Your task to perform on an android device: delete browsing data in the chrome app Image 0: 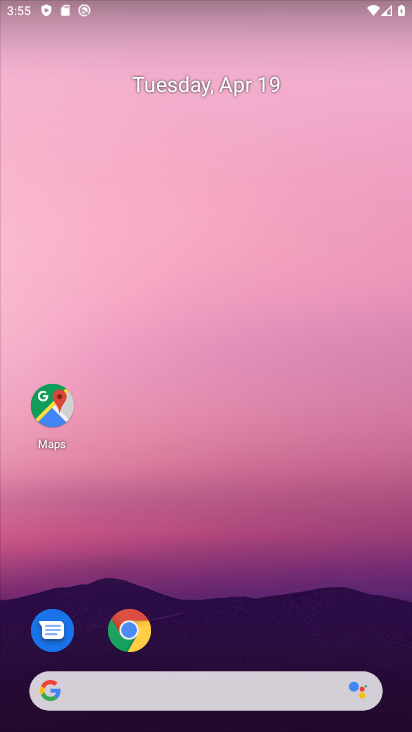
Step 0: drag from (246, 561) to (328, 3)
Your task to perform on an android device: delete browsing data in the chrome app Image 1: 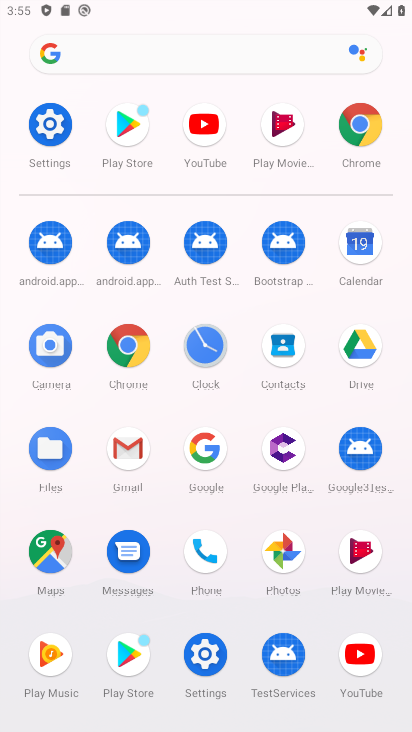
Step 1: click (373, 111)
Your task to perform on an android device: delete browsing data in the chrome app Image 2: 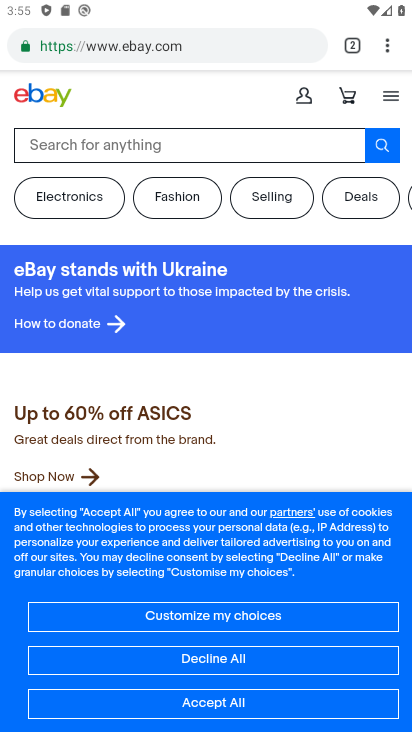
Step 2: drag from (384, 45) to (211, 307)
Your task to perform on an android device: delete browsing data in the chrome app Image 3: 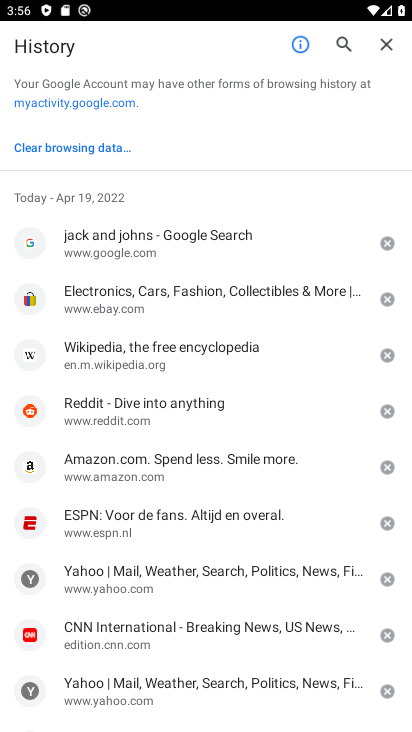
Step 3: click (83, 151)
Your task to perform on an android device: delete browsing data in the chrome app Image 4: 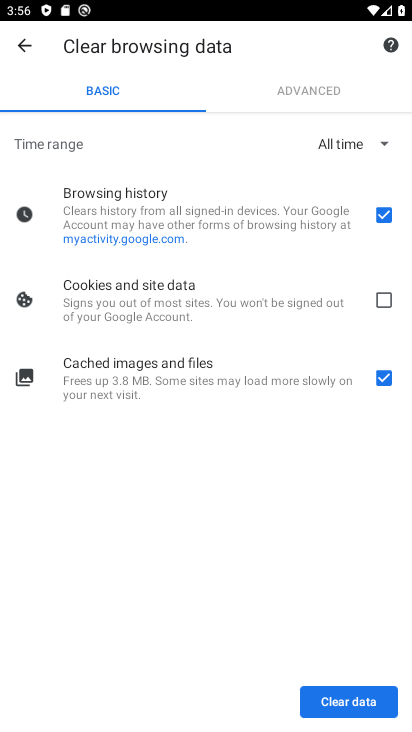
Step 4: click (323, 704)
Your task to perform on an android device: delete browsing data in the chrome app Image 5: 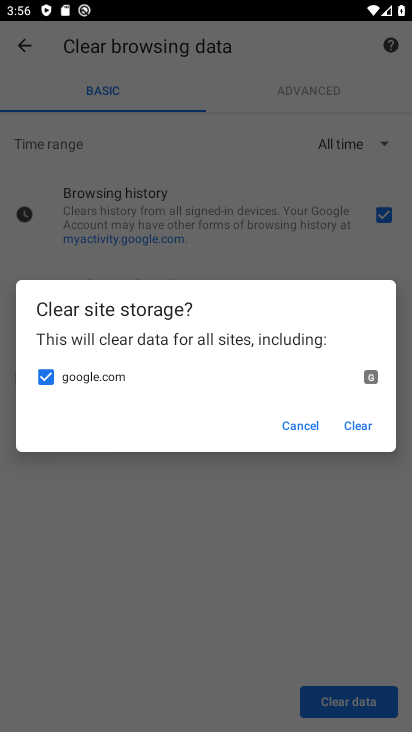
Step 5: click (293, 425)
Your task to perform on an android device: delete browsing data in the chrome app Image 6: 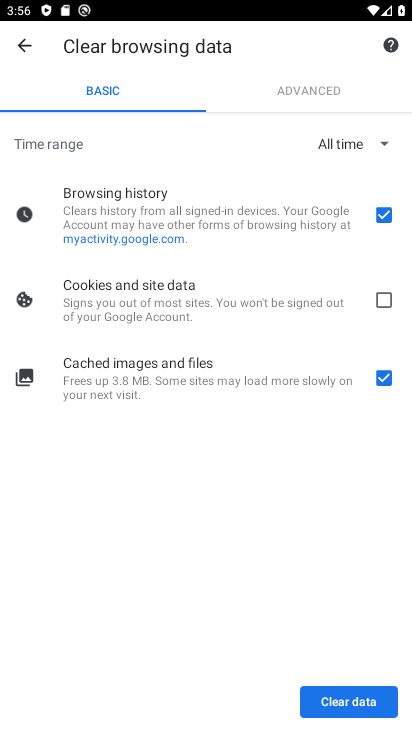
Step 6: click (385, 362)
Your task to perform on an android device: delete browsing data in the chrome app Image 7: 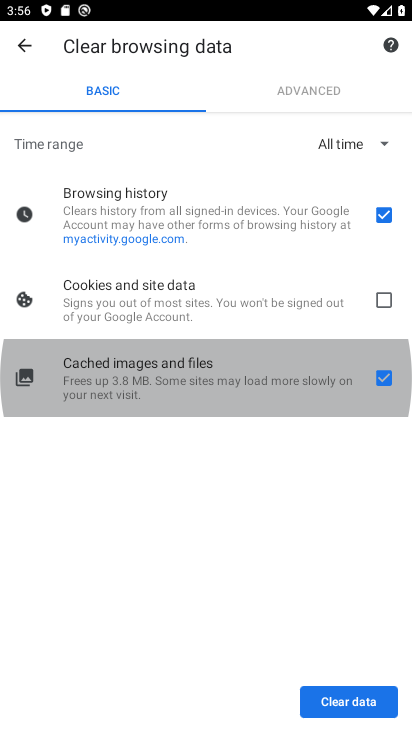
Step 7: click (390, 376)
Your task to perform on an android device: delete browsing data in the chrome app Image 8: 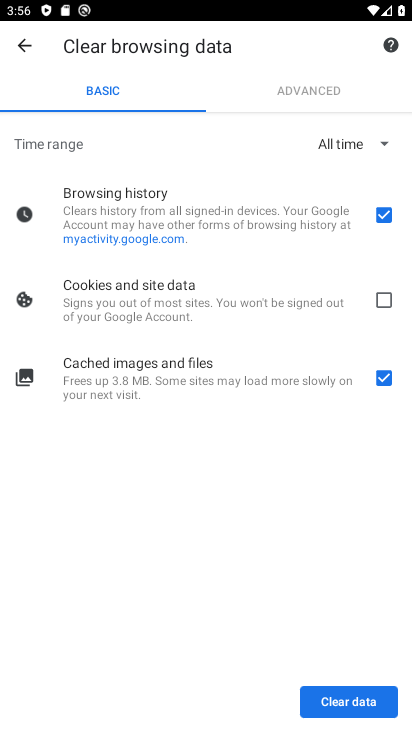
Step 8: click (338, 697)
Your task to perform on an android device: delete browsing data in the chrome app Image 9: 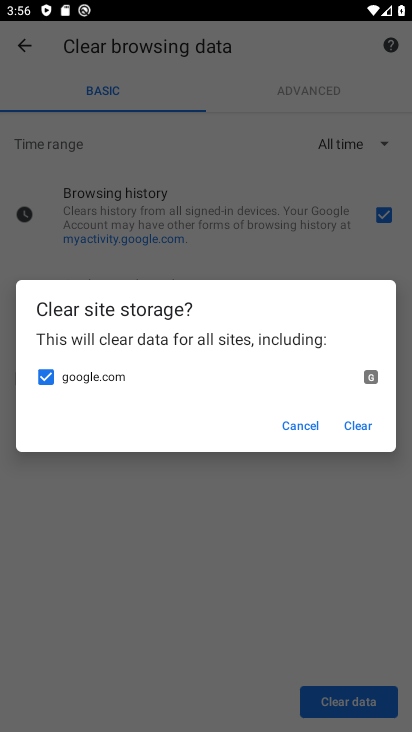
Step 9: click (284, 414)
Your task to perform on an android device: delete browsing data in the chrome app Image 10: 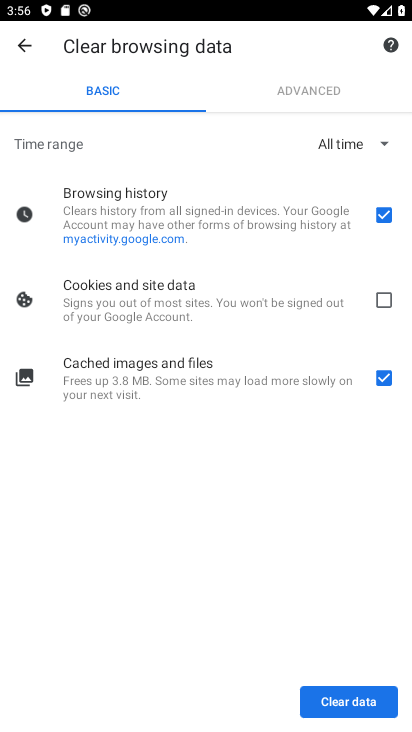
Step 10: click (387, 383)
Your task to perform on an android device: delete browsing data in the chrome app Image 11: 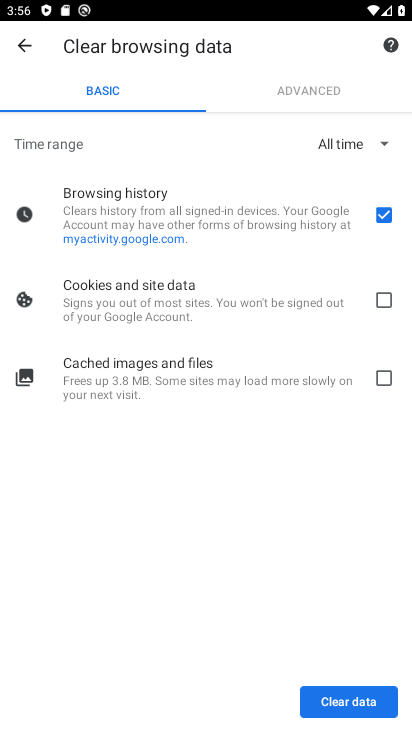
Step 11: click (359, 699)
Your task to perform on an android device: delete browsing data in the chrome app Image 12: 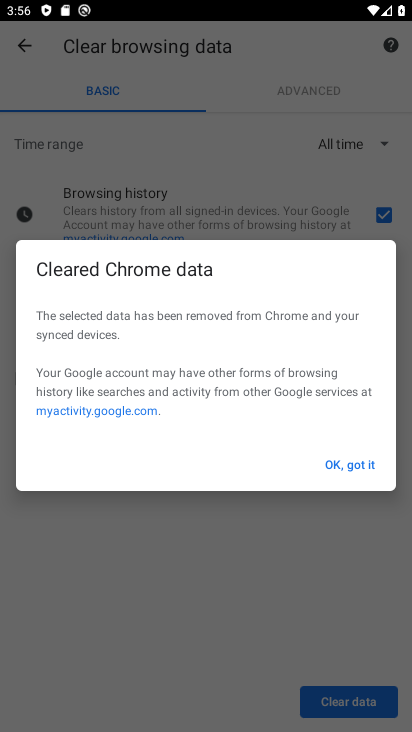
Step 12: click (353, 451)
Your task to perform on an android device: delete browsing data in the chrome app Image 13: 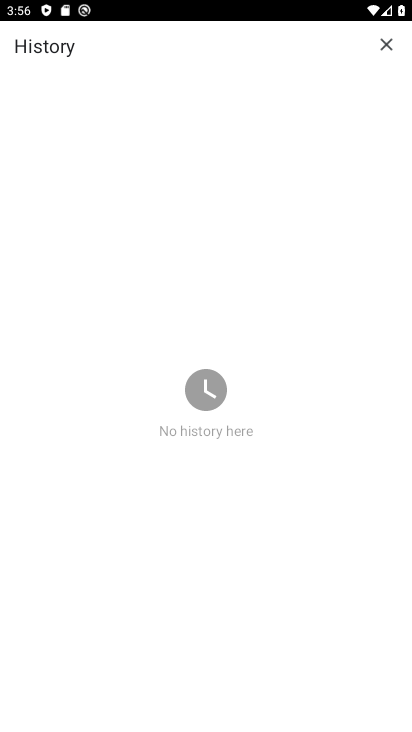
Step 13: task complete